Your task to perform on an android device: Open Youtube and go to "Your channel" Image 0: 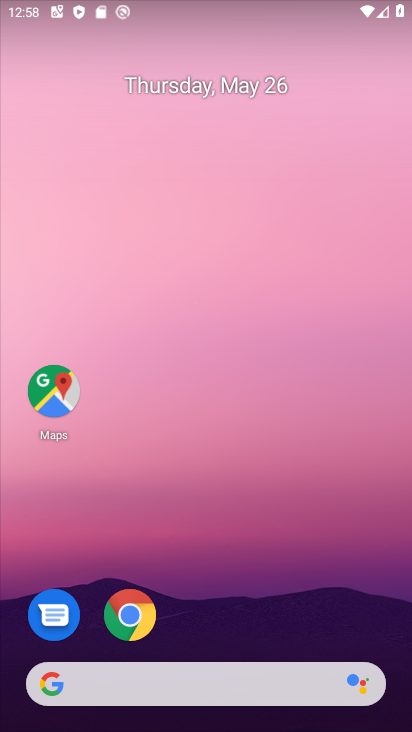
Step 0: drag from (181, 618) to (236, 111)
Your task to perform on an android device: Open Youtube and go to "Your channel" Image 1: 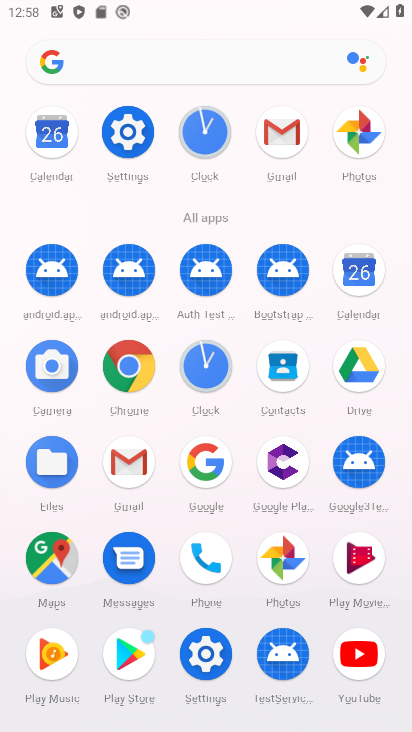
Step 1: click (364, 656)
Your task to perform on an android device: Open Youtube and go to "Your channel" Image 2: 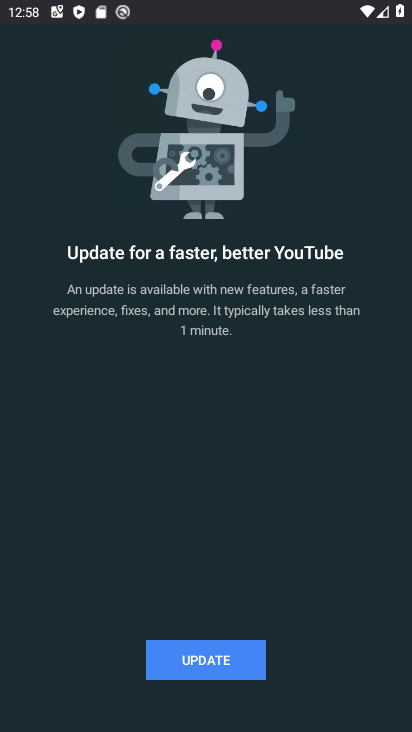
Step 2: click (201, 662)
Your task to perform on an android device: Open Youtube and go to "Your channel" Image 3: 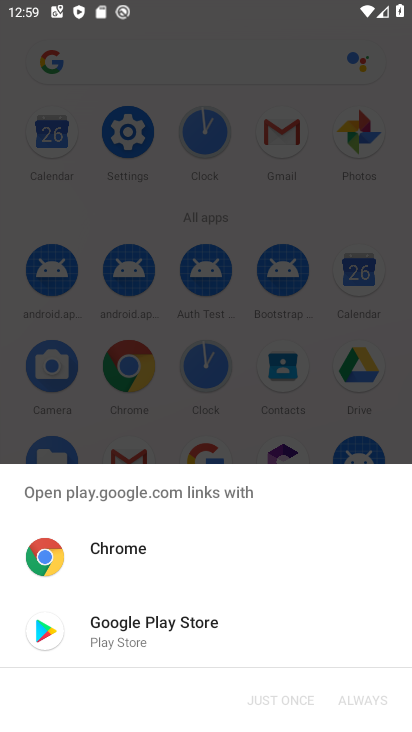
Step 3: click (174, 636)
Your task to perform on an android device: Open Youtube and go to "Your channel" Image 4: 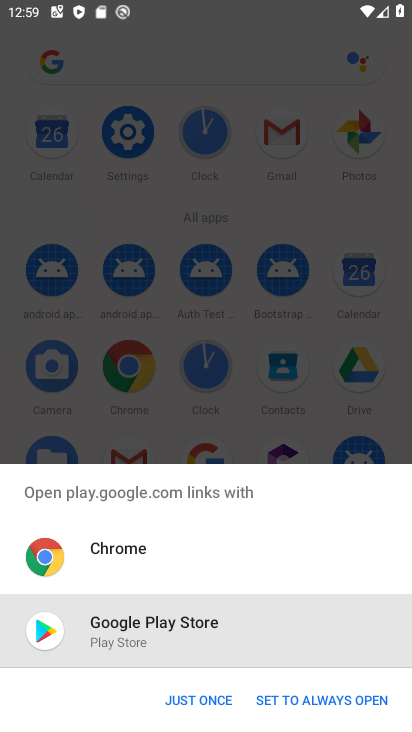
Step 4: click (213, 699)
Your task to perform on an android device: Open Youtube and go to "Your channel" Image 5: 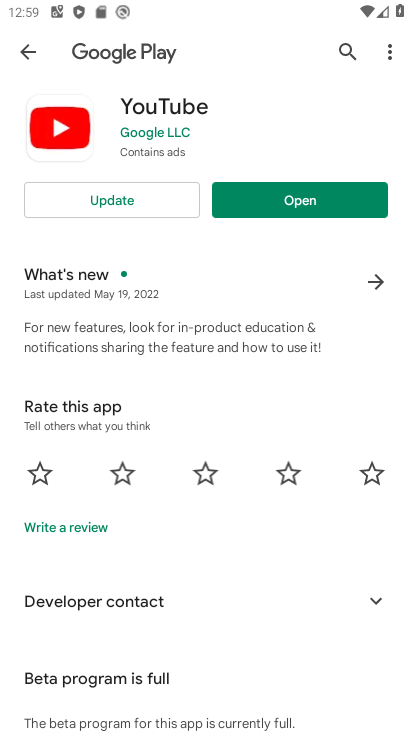
Step 5: click (156, 201)
Your task to perform on an android device: Open Youtube and go to "Your channel" Image 6: 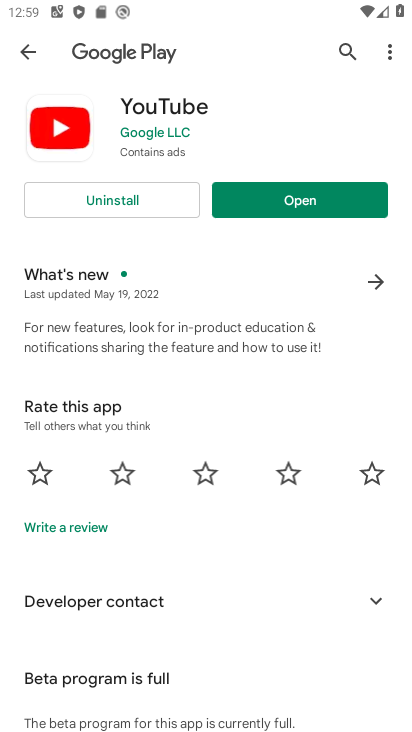
Step 6: click (275, 201)
Your task to perform on an android device: Open Youtube and go to "Your channel" Image 7: 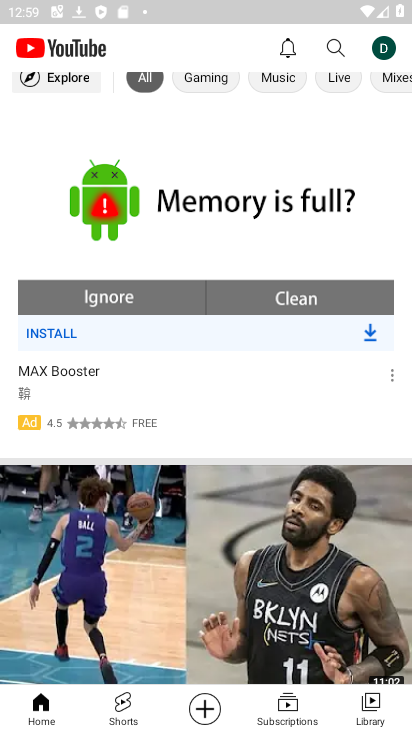
Step 7: click (385, 46)
Your task to perform on an android device: Open Youtube and go to "Your channel" Image 8: 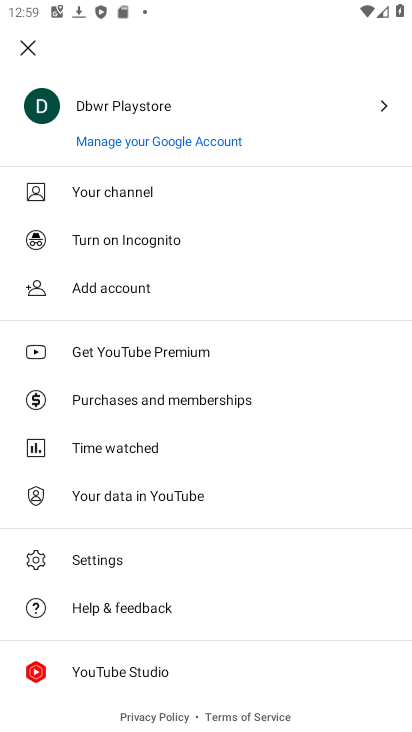
Step 8: click (123, 186)
Your task to perform on an android device: Open Youtube and go to "Your channel" Image 9: 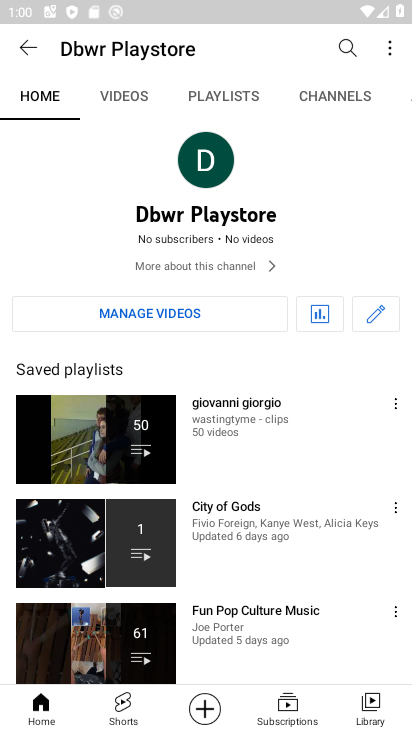
Step 9: task complete